Your task to perform on an android device: stop showing notifications on the lock screen Image 0: 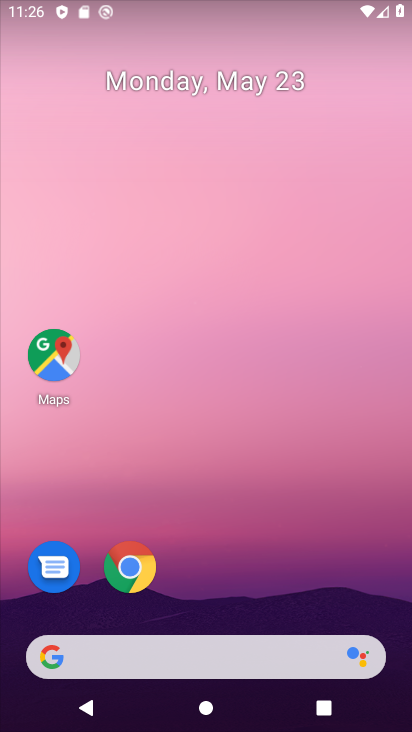
Step 0: drag from (240, 579) to (246, 199)
Your task to perform on an android device: stop showing notifications on the lock screen Image 1: 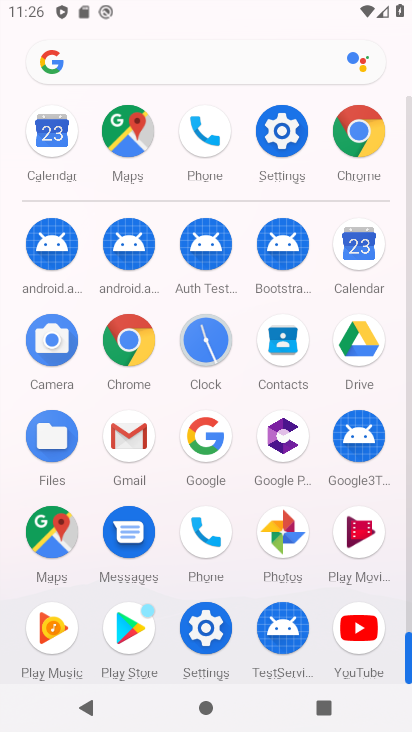
Step 1: click (284, 146)
Your task to perform on an android device: stop showing notifications on the lock screen Image 2: 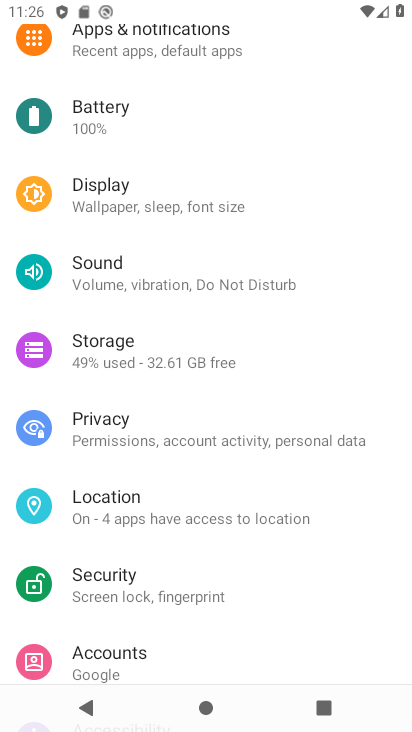
Step 2: click (203, 49)
Your task to perform on an android device: stop showing notifications on the lock screen Image 3: 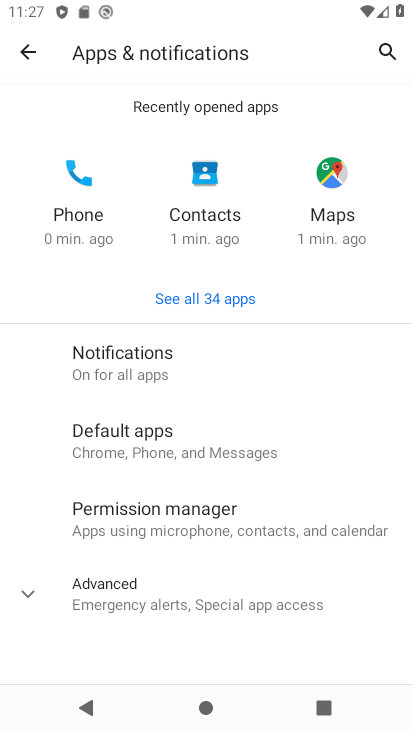
Step 3: click (165, 373)
Your task to perform on an android device: stop showing notifications on the lock screen Image 4: 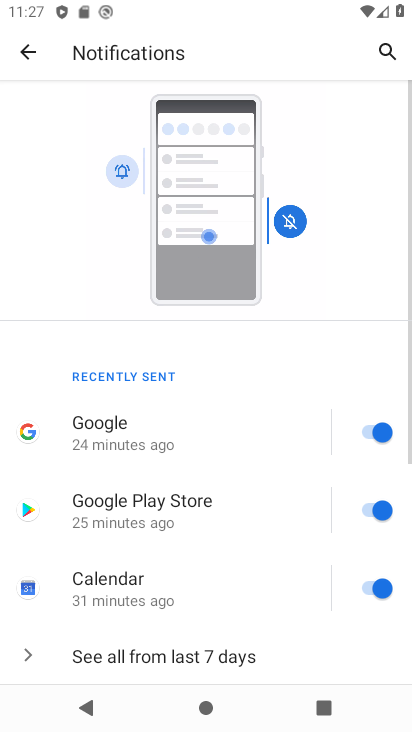
Step 4: drag from (241, 585) to (240, 270)
Your task to perform on an android device: stop showing notifications on the lock screen Image 5: 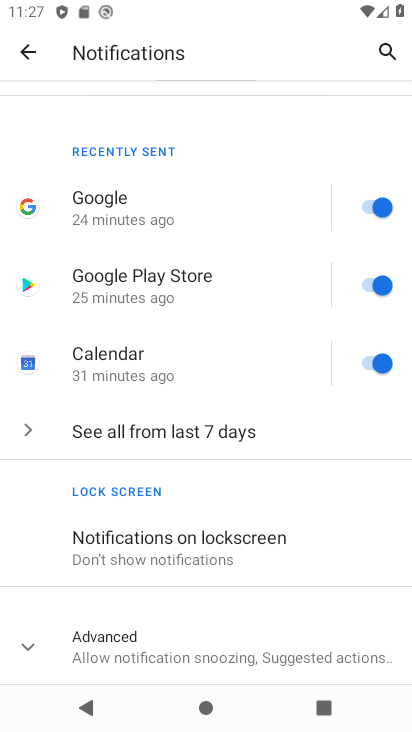
Step 5: click (182, 536)
Your task to perform on an android device: stop showing notifications on the lock screen Image 6: 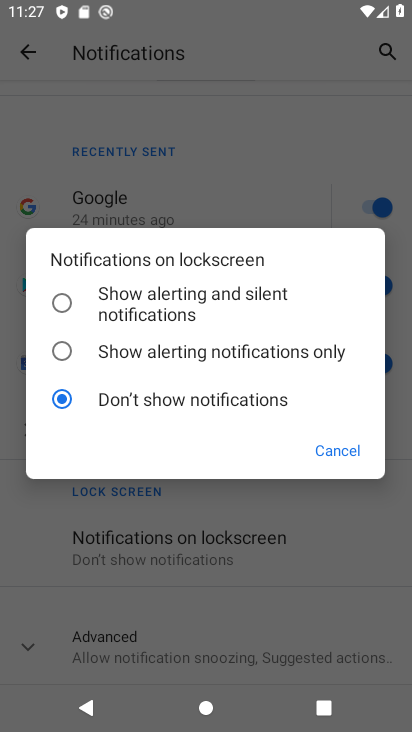
Step 6: task complete